Your task to perform on an android device: add a contact Image 0: 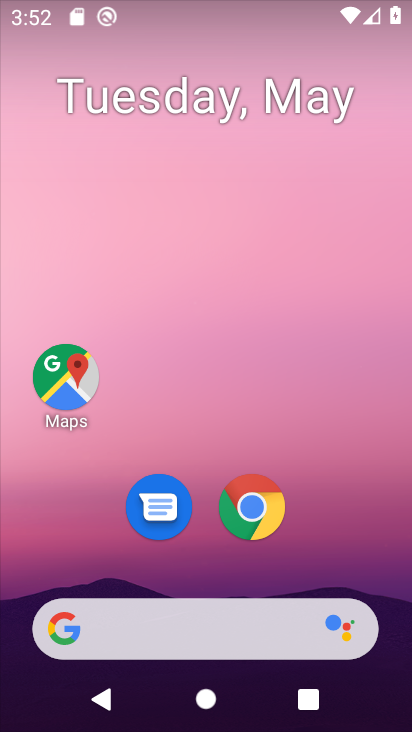
Step 0: drag from (226, 495) to (348, 6)
Your task to perform on an android device: add a contact Image 1: 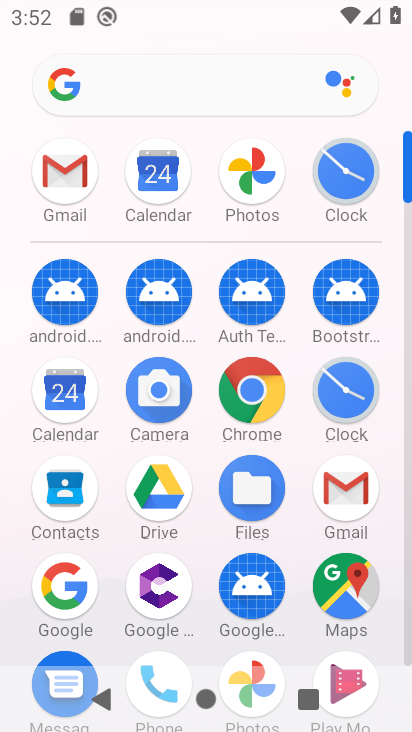
Step 1: click (59, 500)
Your task to perform on an android device: add a contact Image 2: 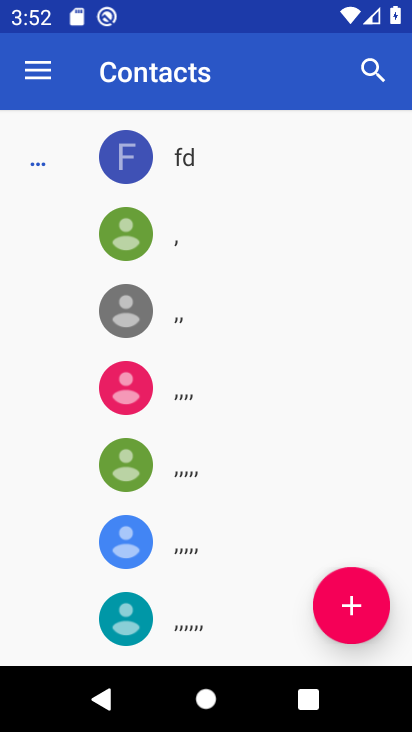
Step 2: click (348, 618)
Your task to perform on an android device: add a contact Image 3: 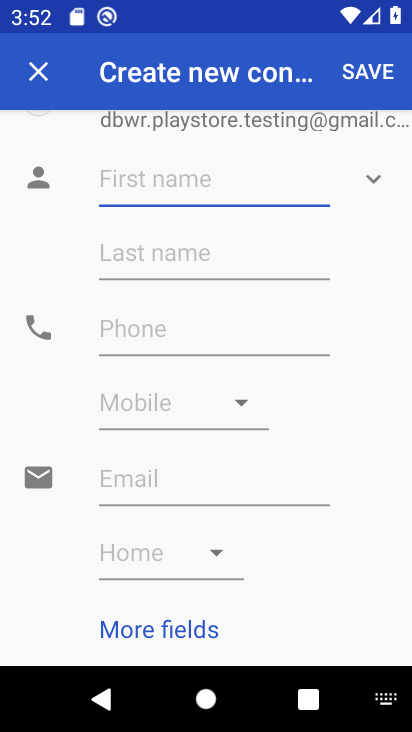
Step 3: type "ertyuiopwq"
Your task to perform on an android device: add a contact Image 4: 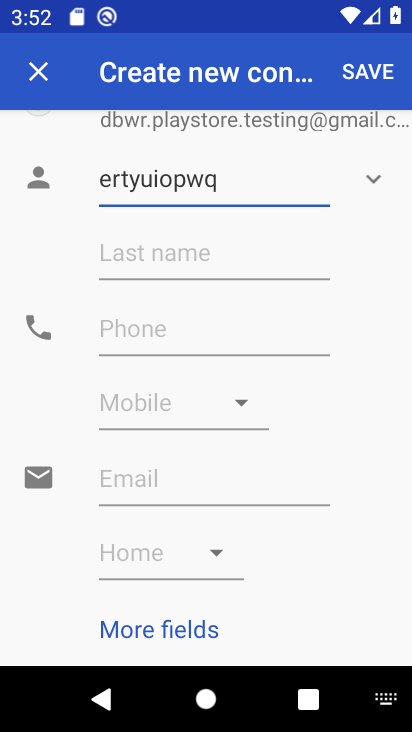
Step 4: click (126, 335)
Your task to perform on an android device: add a contact Image 5: 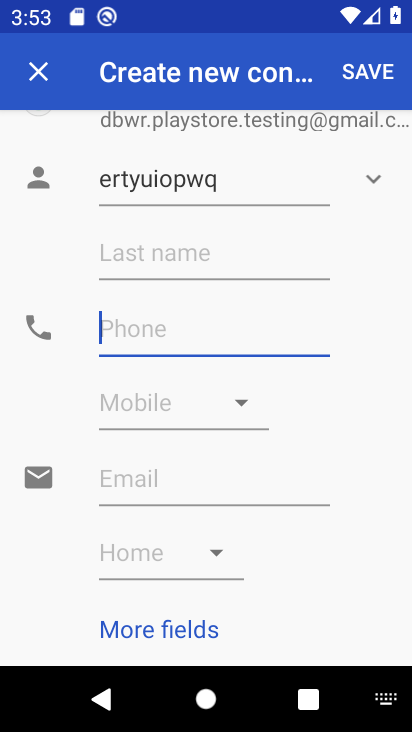
Step 5: type "2345678900"
Your task to perform on an android device: add a contact Image 6: 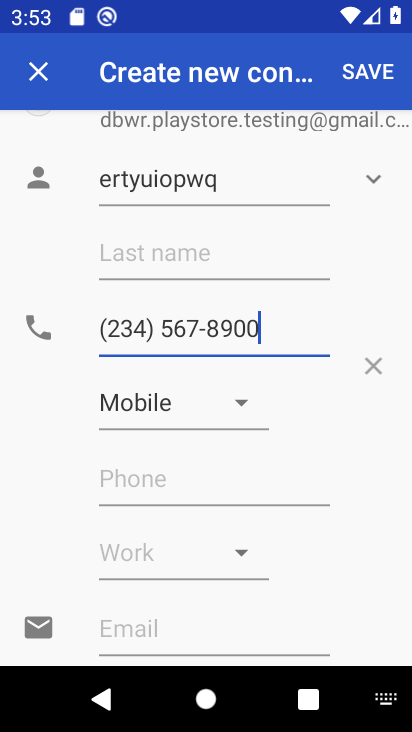
Step 6: click (347, 61)
Your task to perform on an android device: add a contact Image 7: 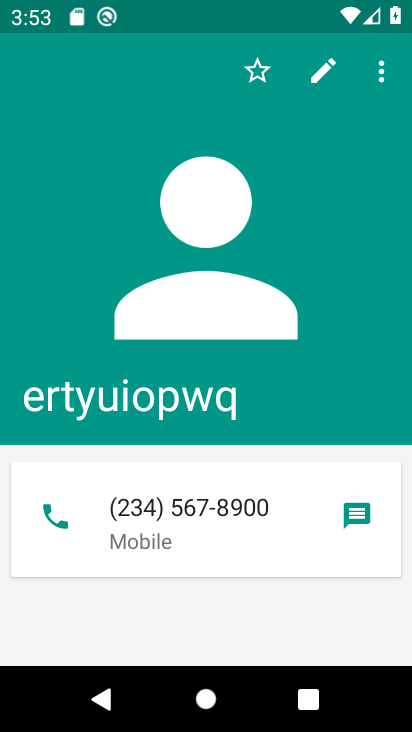
Step 7: task complete